Your task to perform on an android device: Open Android settings Image 0: 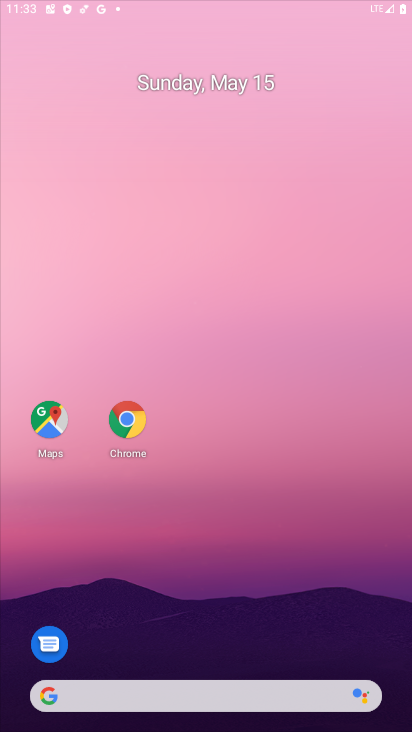
Step 0: click (198, 16)
Your task to perform on an android device: Open Android settings Image 1: 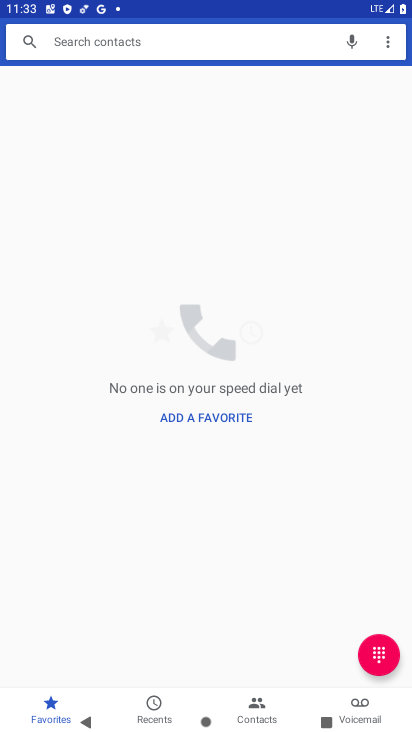
Step 1: drag from (198, 552) to (217, 176)
Your task to perform on an android device: Open Android settings Image 2: 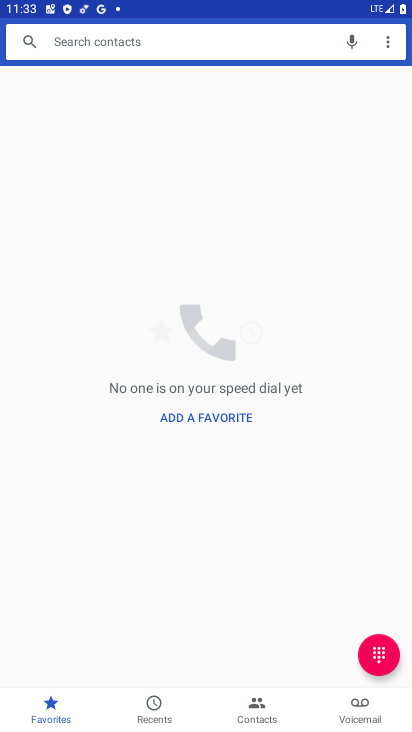
Step 2: drag from (217, 567) to (223, 298)
Your task to perform on an android device: Open Android settings Image 3: 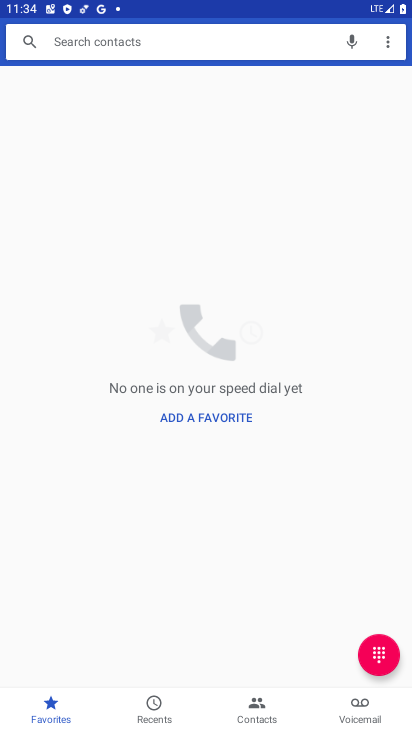
Step 3: drag from (178, 539) to (258, 165)
Your task to perform on an android device: Open Android settings Image 4: 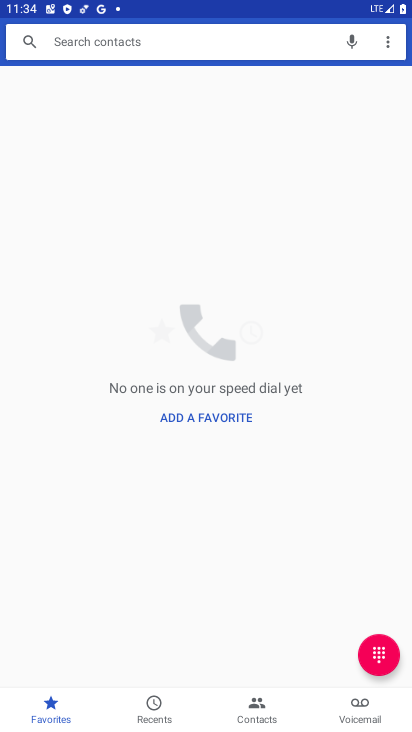
Step 4: drag from (248, 546) to (263, 227)
Your task to perform on an android device: Open Android settings Image 5: 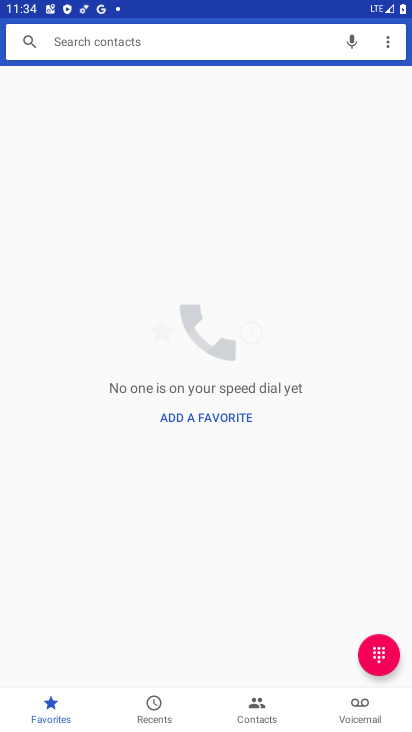
Step 5: press home button
Your task to perform on an android device: Open Android settings Image 6: 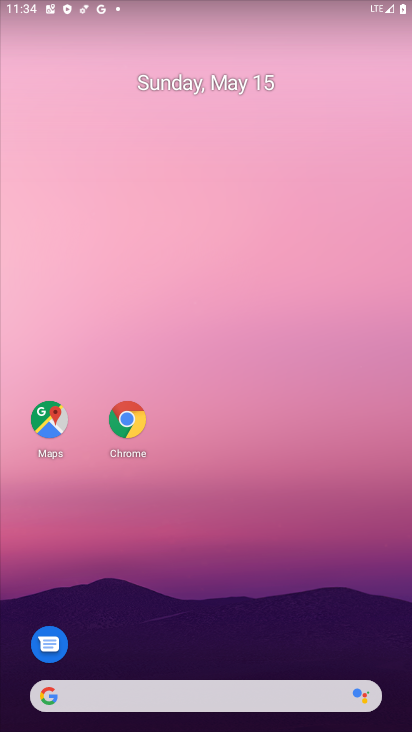
Step 6: drag from (233, 635) to (254, 252)
Your task to perform on an android device: Open Android settings Image 7: 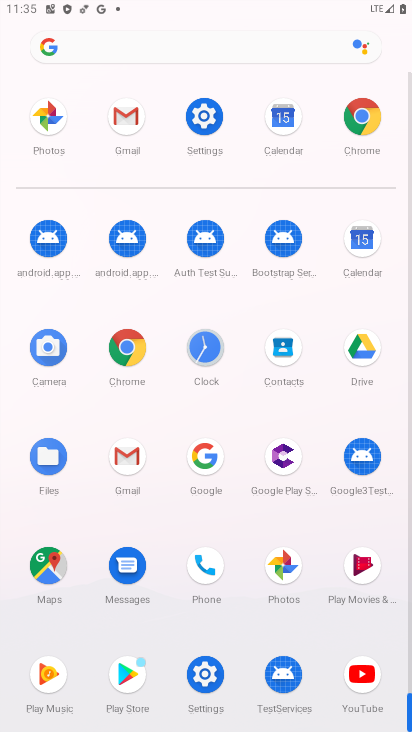
Step 7: click (199, 125)
Your task to perform on an android device: Open Android settings Image 8: 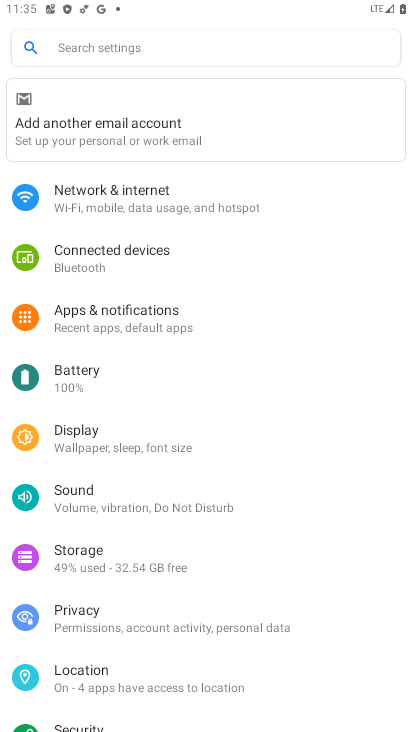
Step 8: drag from (235, 630) to (330, 39)
Your task to perform on an android device: Open Android settings Image 9: 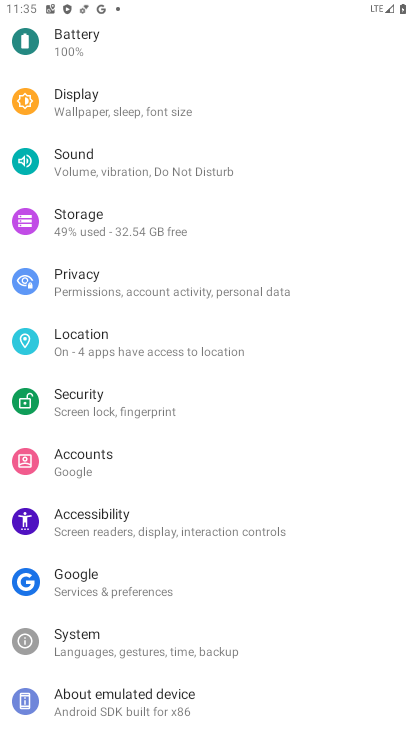
Step 9: click (129, 693)
Your task to perform on an android device: Open Android settings Image 10: 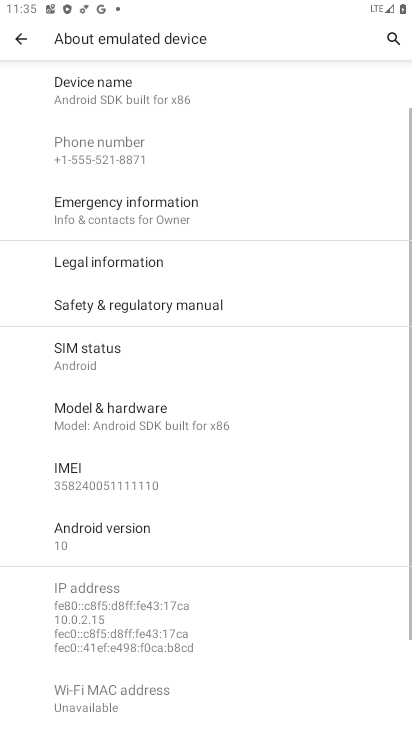
Step 10: drag from (204, 504) to (197, 27)
Your task to perform on an android device: Open Android settings Image 11: 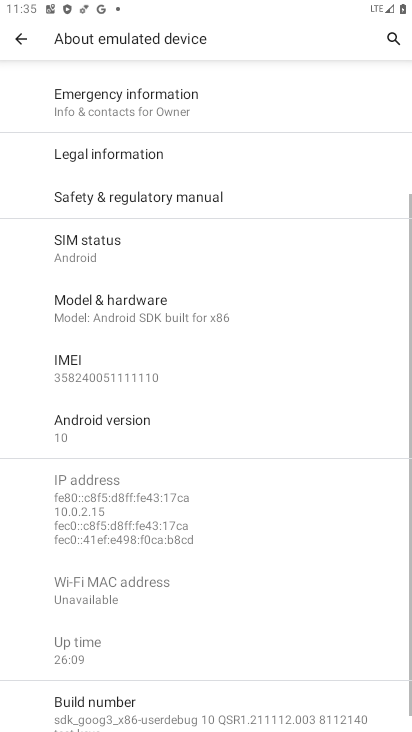
Step 11: click (148, 411)
Your task to perform on an android device: Open Android settings Image 12: 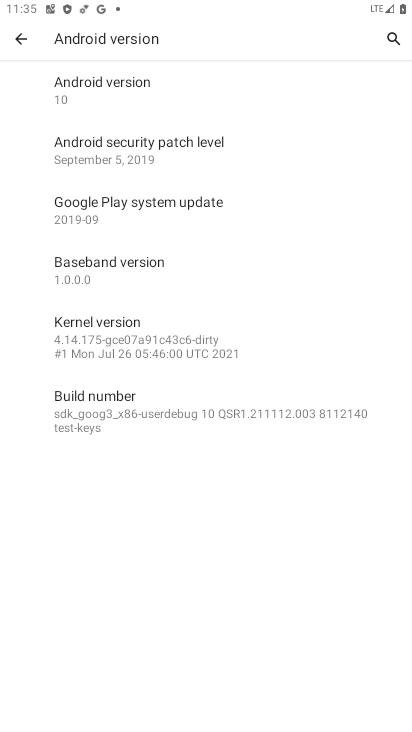
Step 12: drag from (103, 616) to (267, 213)
Your task to perform on an android device: Open Android settings Image 13: 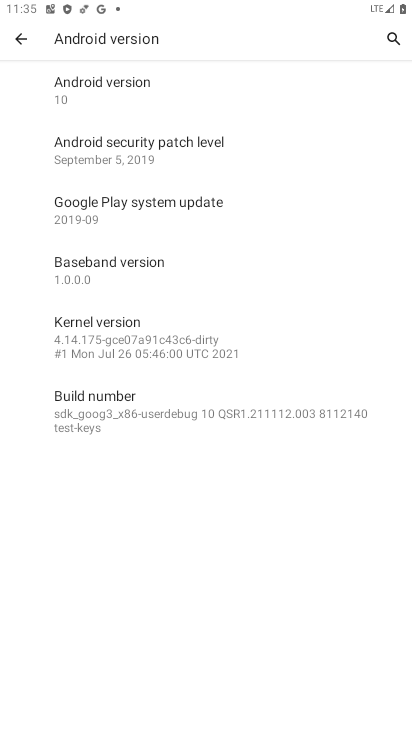
Step 13: click (155, 85)
Your task to perform on an android device: Open Android settings Image 14: 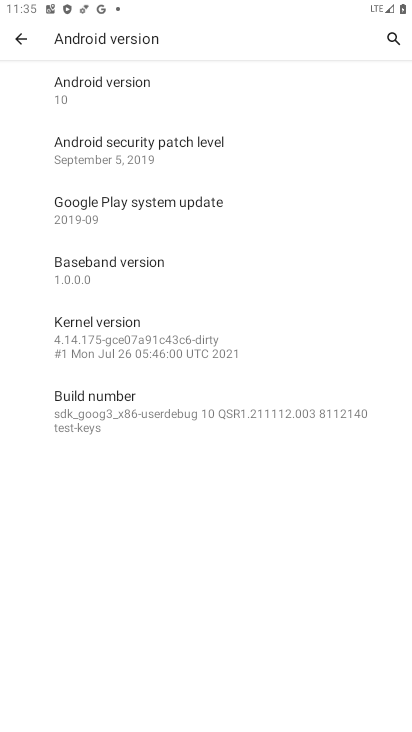
Step 14: task complete